Your task to perform on an android device: Open Wikipedia Image 0: 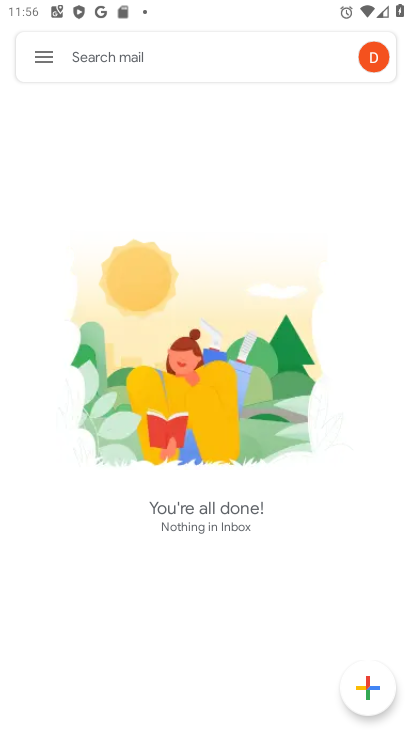
Step 0: press home button
Your task to perform on an android device: Open Wikipedia Image 1: 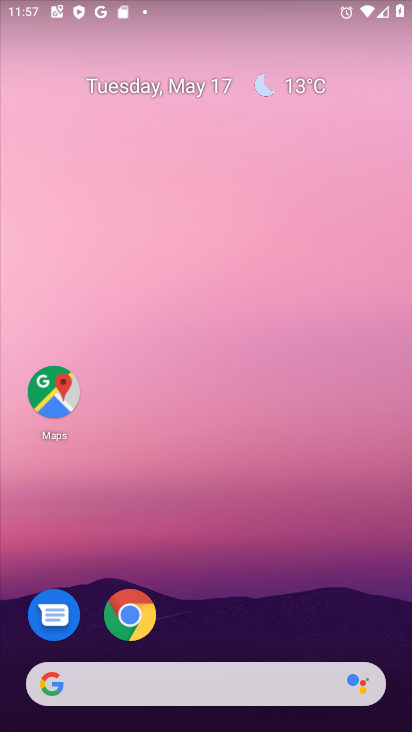
Step 1: click (126, 608)
Your task to perform on an android device: Open Wikipedia Image 2: 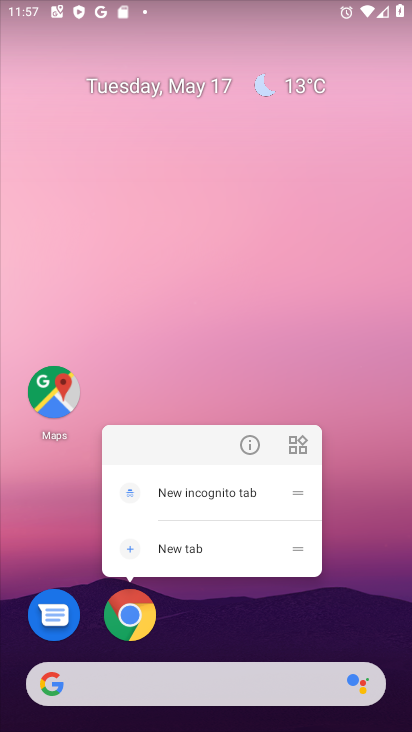
Step 2: click (135, 612)
Your task to perform on an android device: Open Wikipedia Image 3: 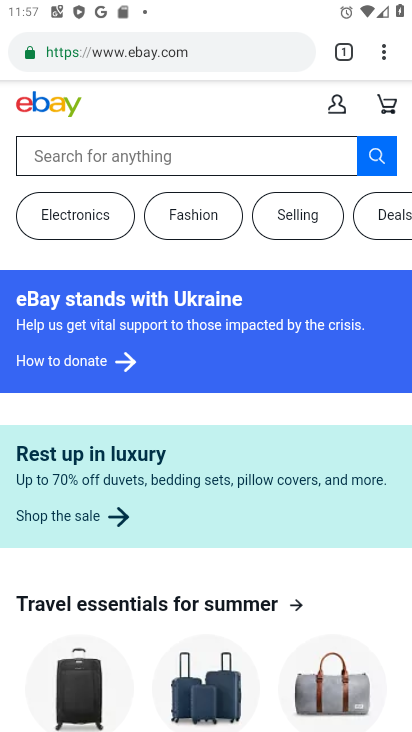
Step 3: click (192, 50)
Your task to perform on an android device: Open Wikipedia Image 4: 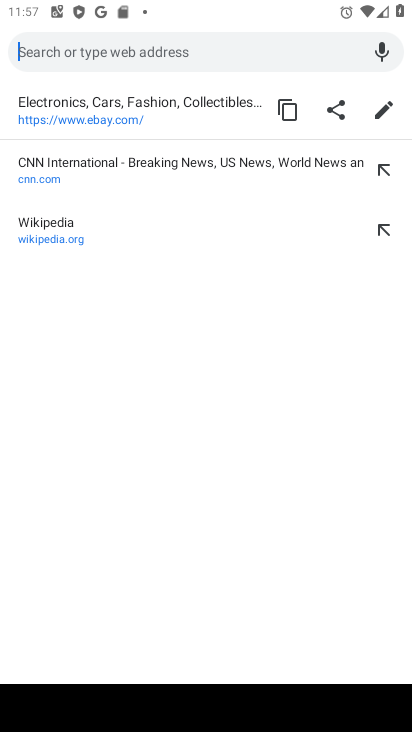
Step 4: click (77, 238)
Your task to perform on an android device: Open Wikipedia Image 5: 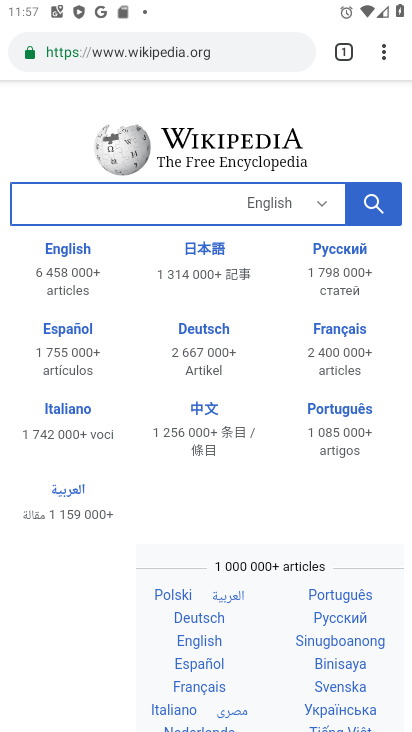
Step 5: task complete